Your task to perform on an android device: Show me popular games on the Play Store Image 0: 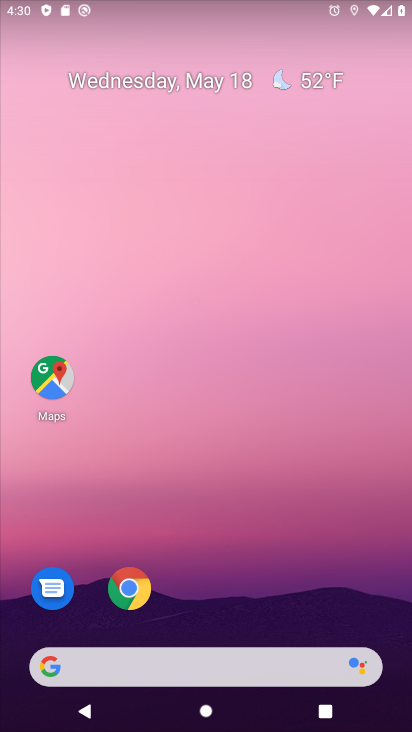
Step 0: drag from (272, 490) to (294, 66)
Your task to perform on an android device: Show me popular games on the Play Store Image 1: 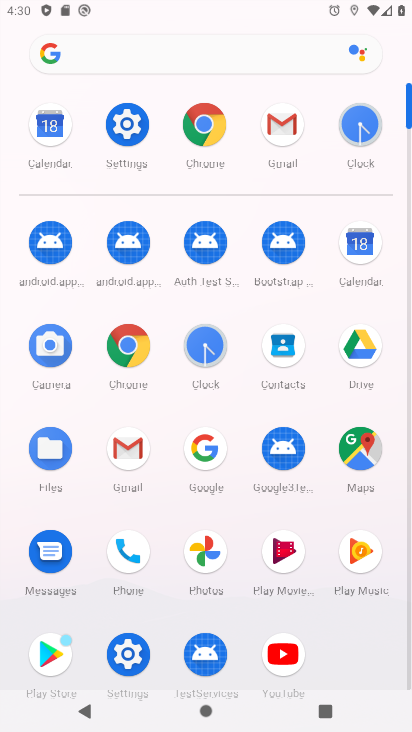
Step 1: click (49, 638)
Your task to perform on an android device: Show me popular games on the Play Store Image 2: 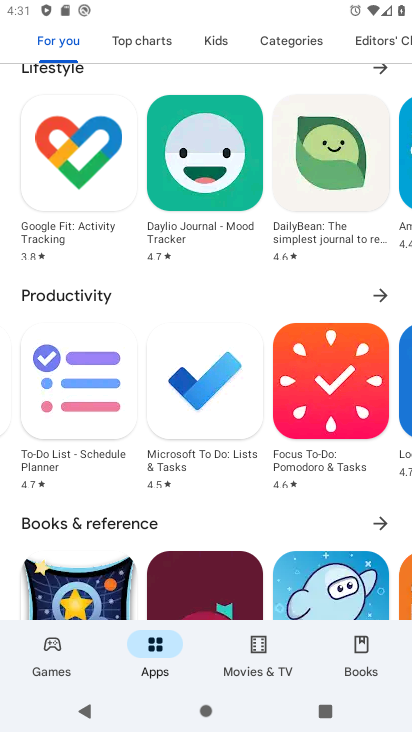
Step 2: click (46, 659)
Your task to perform on an android device: Show me popular games on the Play Store Image 3: 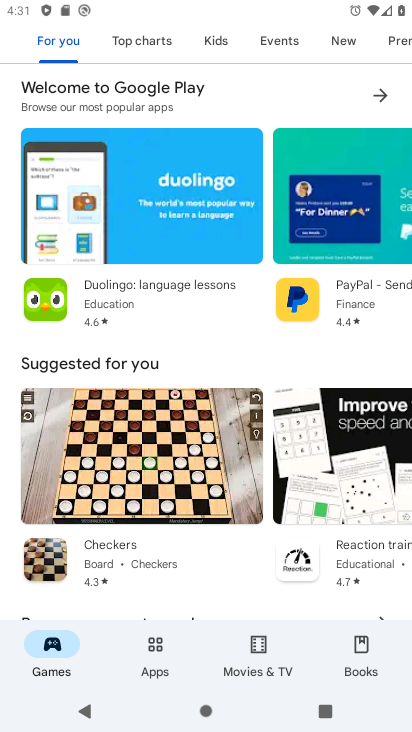
Step 3: drag from (162, 438) to (184, 690)
Your task to perform on an android device: Show me popular games on the Play Store Image 4: 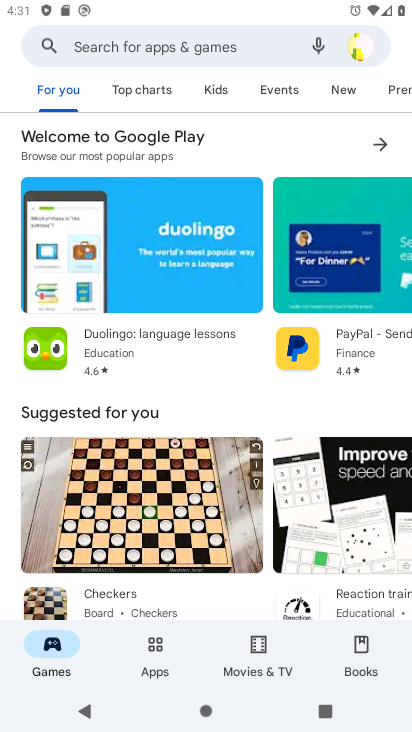
Step 4: drag from (203, 474) to (258, 118)
Your task to perform on an android device: Show me popular games on the Play Store Image 5: 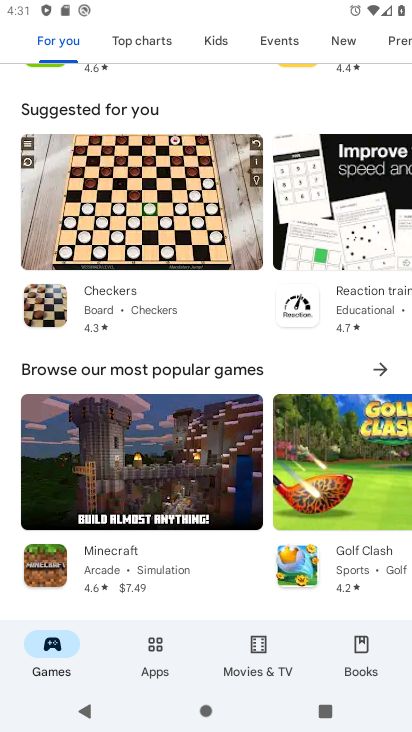
Step 5: drag from (189, 527) to (232, 157)
Your task to perform on an android device: Show me popular games on the Play Store Image 6: 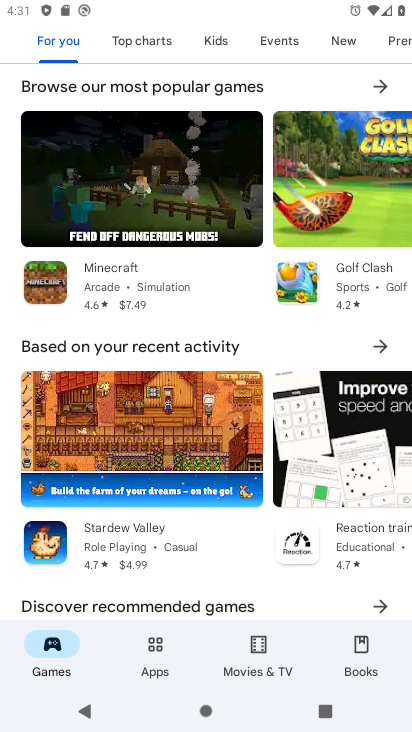
Step 6: drag from (204, 458) to (249, 104)
Your task to perform on an android device: Show me popular games on the Play Store Image 7: 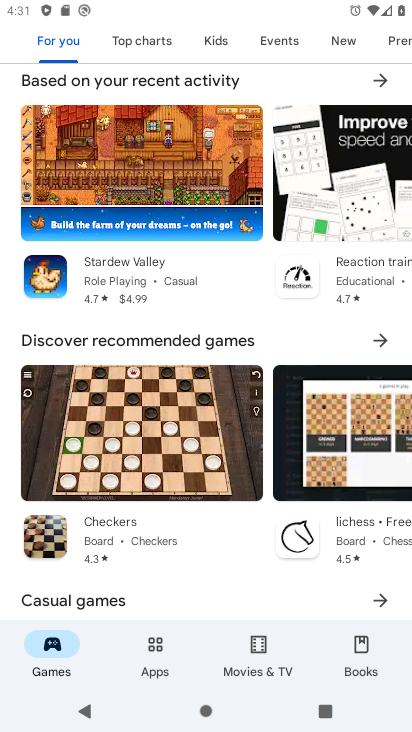
Step 7: drag from (193, 516) to (229, 87)
Your task to perform on an android device: Show me popular games on the Play Store Image 8: 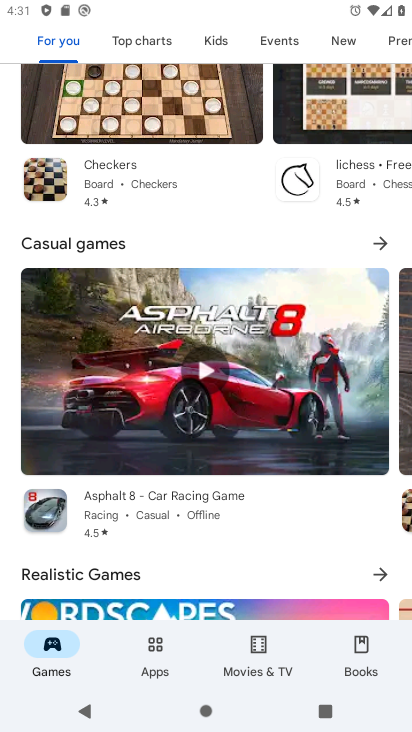
Step 8: drag from (178, 453) to (222, 119)
Your task to perform on an android device: Show me popular games on the Play Store Image 9: 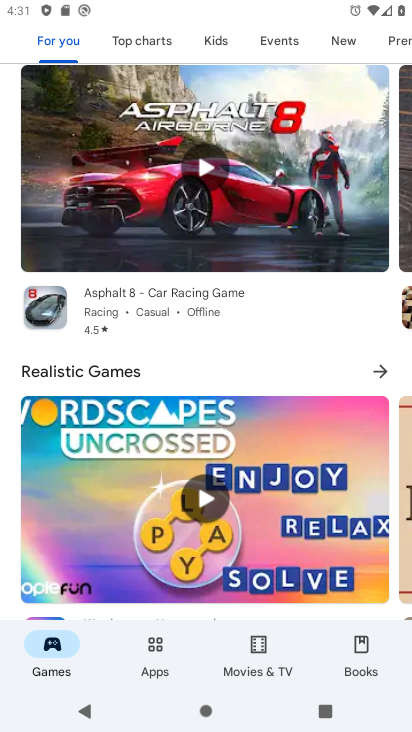
Step 9: drag from (144, 503) to (211, 178)
Your task to perform on an android device: Show me popular games on the Play Store Image 10: 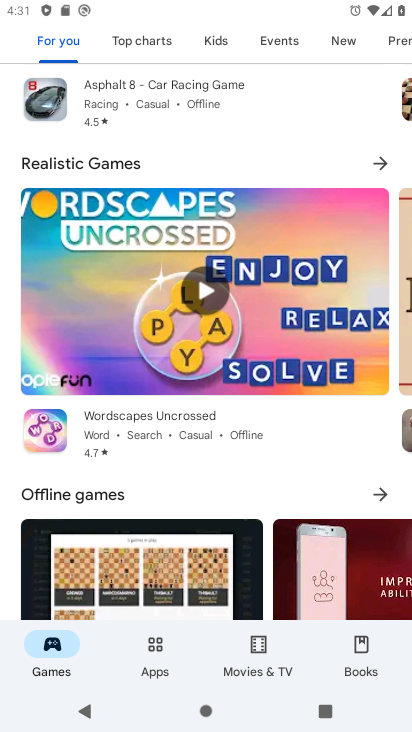
Step 10: drag from (153, 568) to (211, 189)
Your task to perform on an android device: Show me popular games on the Play Store Image 11: 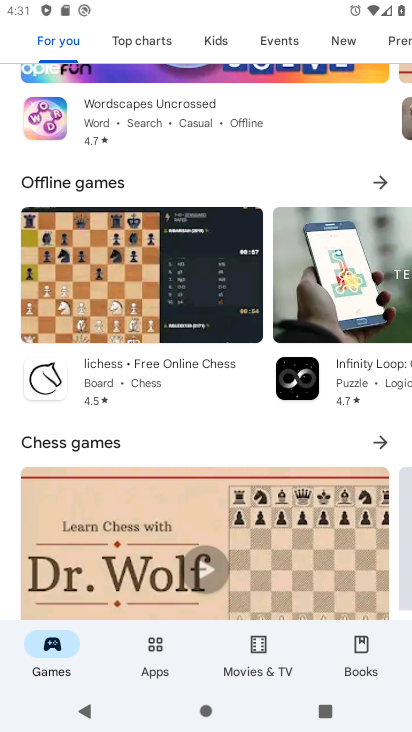
Step 11: drag from (169, 464) to (220, 144)
Your task to perform on an android device: Show me popular games on the Play Store Image 12: 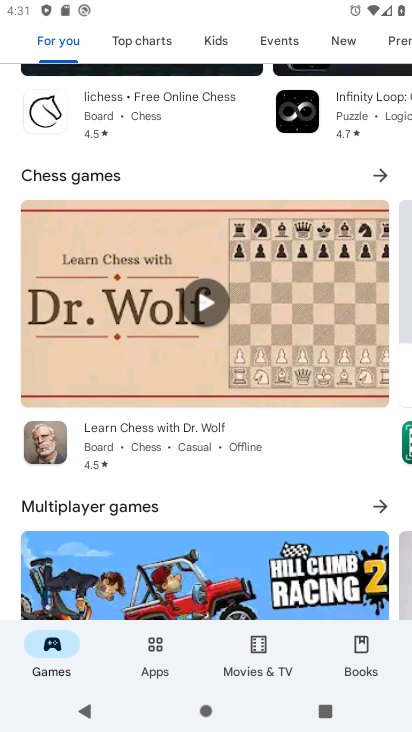
Step 12: drag from (121, 517) to (182, 157)
Your task to perform on an android device: Show me popular games on the Play Store Image 13: 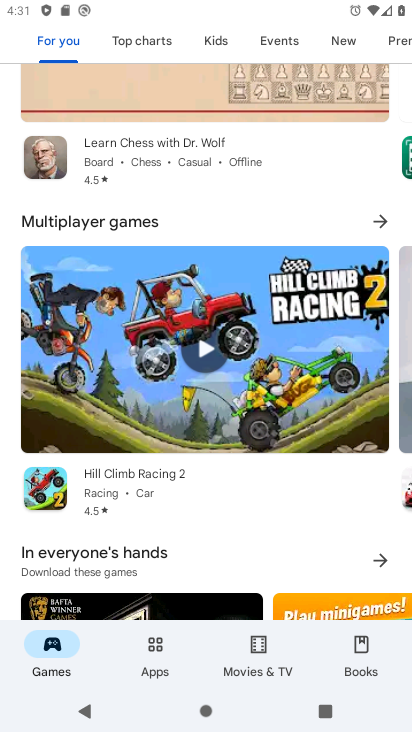
Step 13: drag from (160, 608) to (238, 159)
Your task to perform on an android device: Show me popular games on the Play Store Image 14: 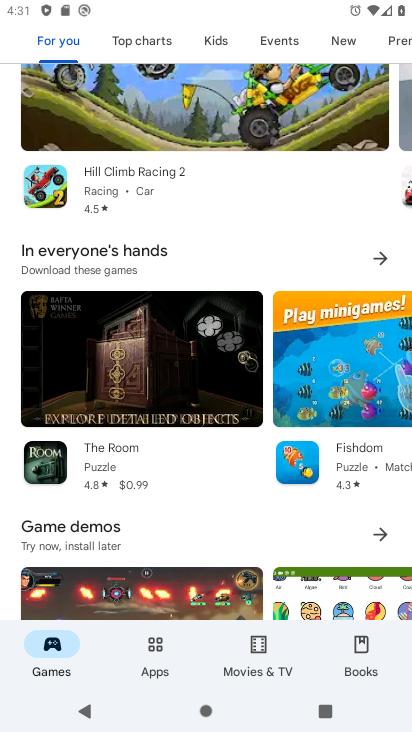
Step 14: drag from (217, 554) to (257, 135)
Your task to perform on an android device: Show me popular games on the Play Store Image 15: 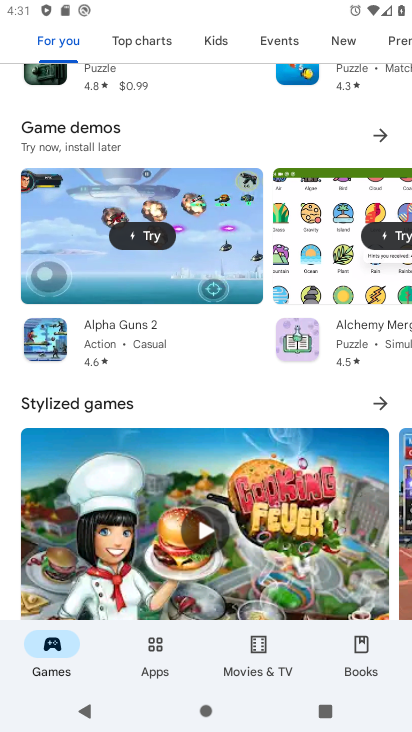
Step 15: drag from (212, 544) to (248, 136)
Your task to perform on an android device: Show me popular games on the Play Store Image 16: 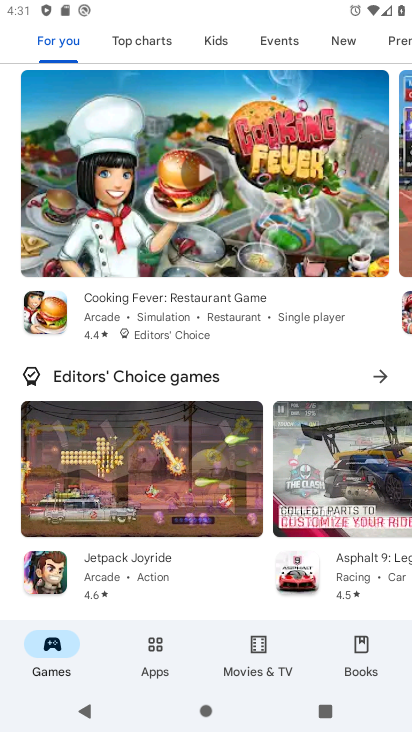
Step 16: drag from (201, 582) to (215, 183)
Your task to perform on an android device: Show me popular games on the Play Store Image 17: 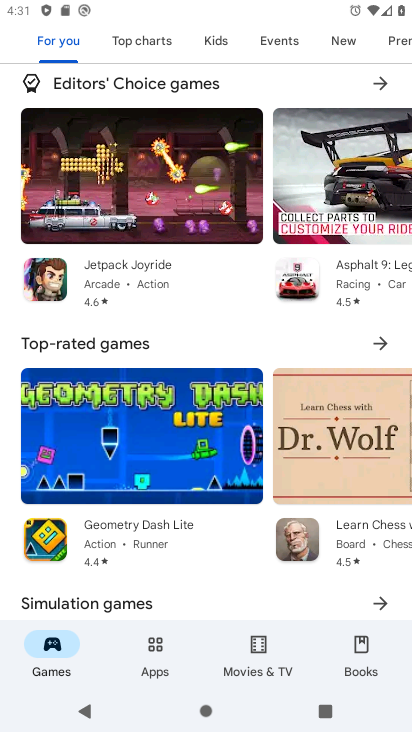
Step 17: drag from (188, 523) to (218, 144)
Your task to perform on an android device: Show me popular games on the Play Store Image 18: 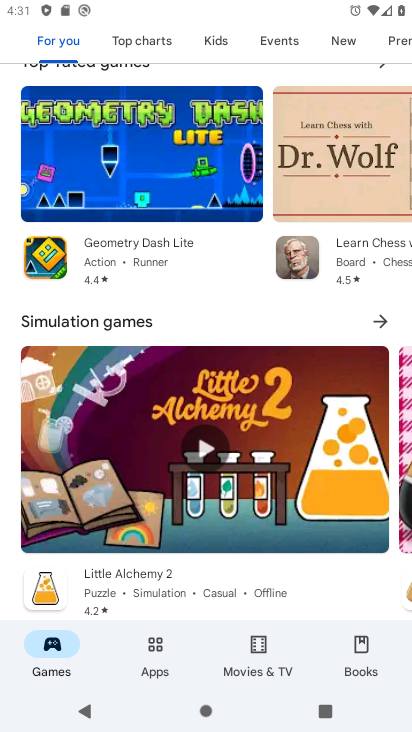
Step 18: drag from (179, 557) to (172, 86)
Your task to perform on an android device: Show me popular games on the Play Store Image 19: 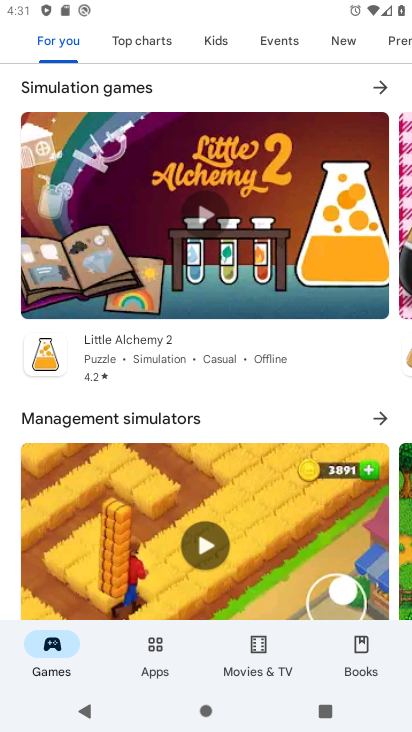
Step 19: drag from (131, 600) to (194, 142)
Your task to perform on an android device: Show me popular games on the Play Store Image 20: 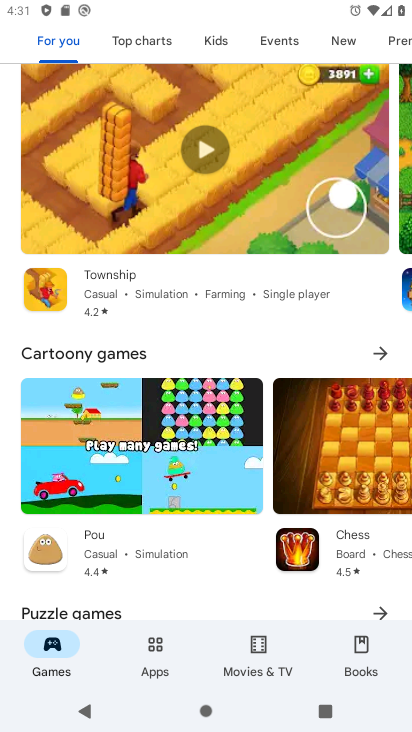
Step 20: drag from (176, 629) to (225, 167)
Your task to perform on an android device: Show me popular games on the Play Store Image 21: 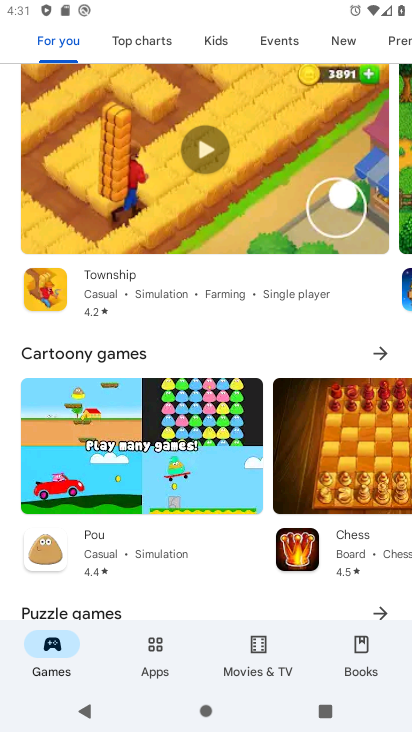
Step 21: drag from (163, 574) to (224, 137)
Your task to perform on an android device: Show me popular games on the Play Store Image 22: 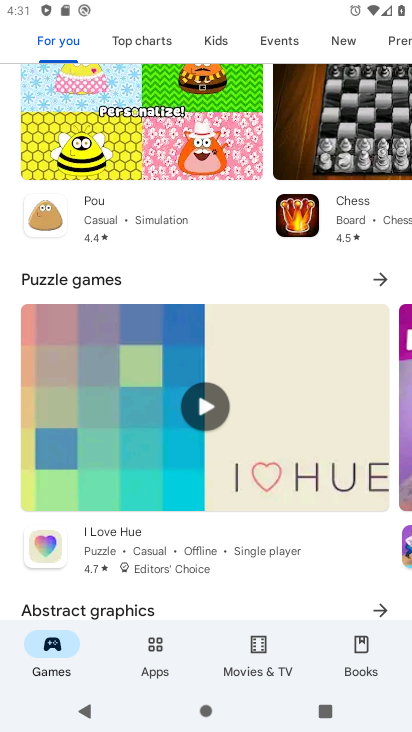
Step 22: drag from (174, 520) to (214, 152)
Your task to perform on an android device: Show me popular games on the Play Store Image 23: 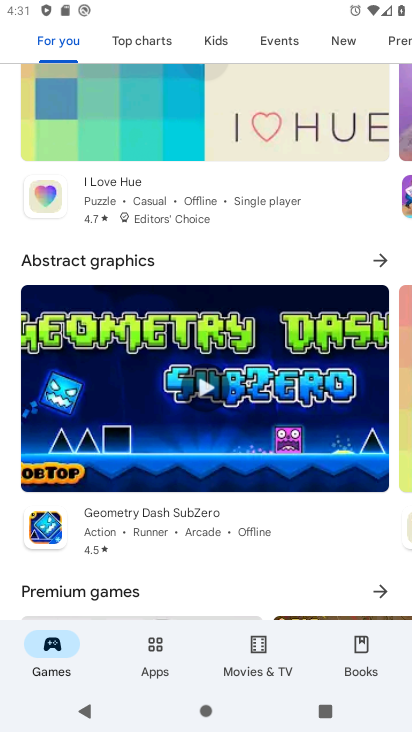
Step 23: drag from (163, 567) to (233, 144)
Your task to perform on an android device: Show me popular games on the Play Store Image 24: 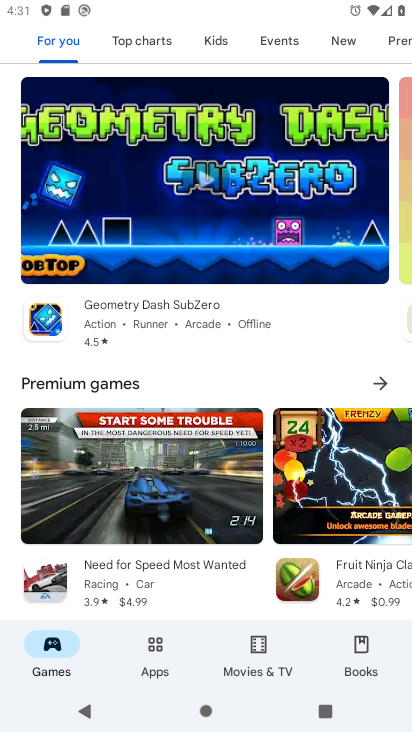
Step 24: drag from (168, 609) to (217, 240)
Your task to perform on an android device: Show me popular games on the Play Store Image 25: 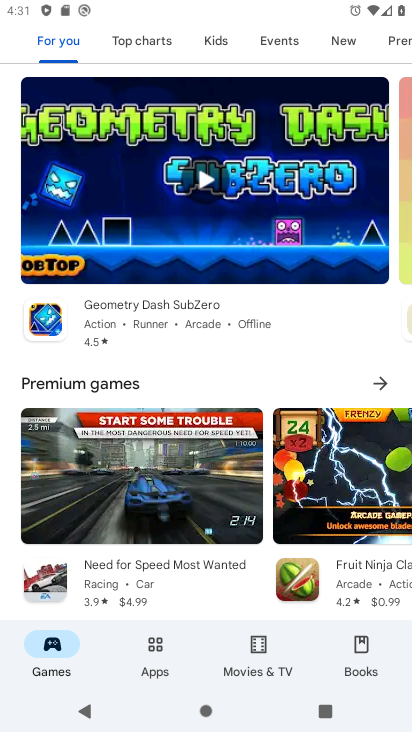
Step 25: drag from (196, 593) to (206, 198)
Your task to perform on an android device: Show me popular games on the Play Store Image 26: 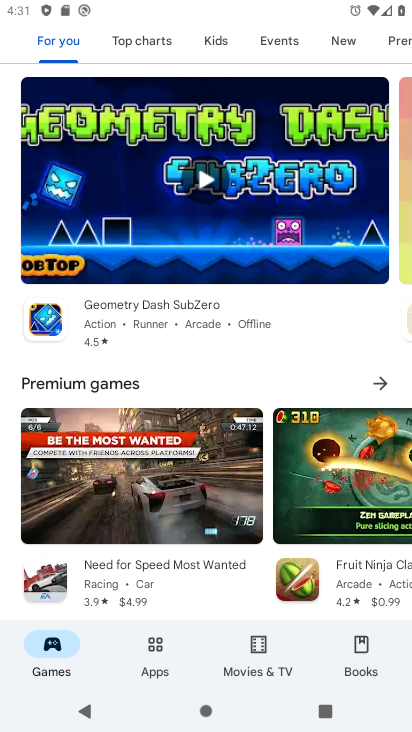
Step 26: drag from (155, 562) to (223, 168)
Your task to perform on an android device: Show me popular games on the Play Store Image 27: 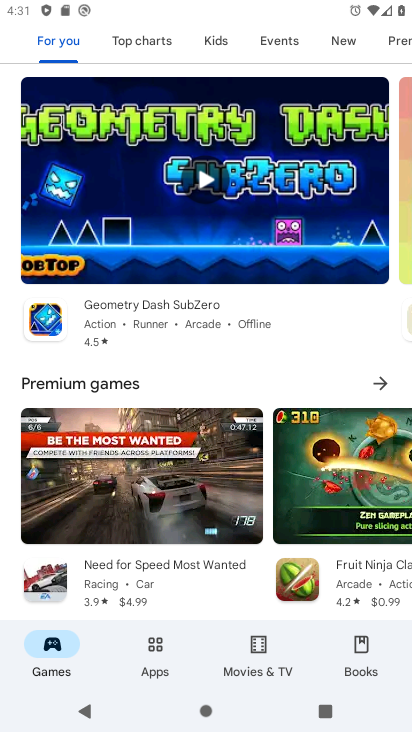
Step 27: drag from (171, 560) to (223, 189)
Your task to perform on an android device: Show me popular games on the Play Store Image 28: 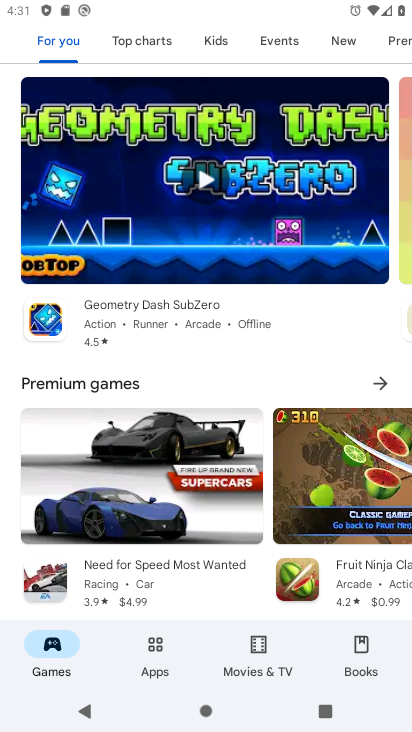
Step 28: drag from (209, 244) to (209, 580)
Your task to perform on an android device: Show me popular games on the Play Store Image 29: 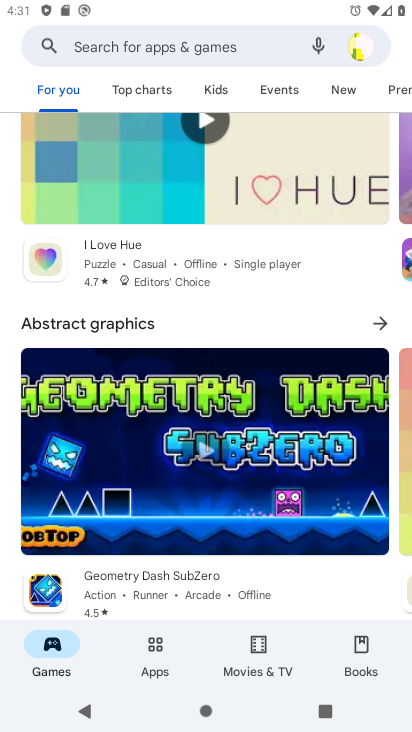
Step 29: drag from (260, 269) to (273, 648)
Your task to perform on an android device: Show me popular games on the Play Store Image 30: 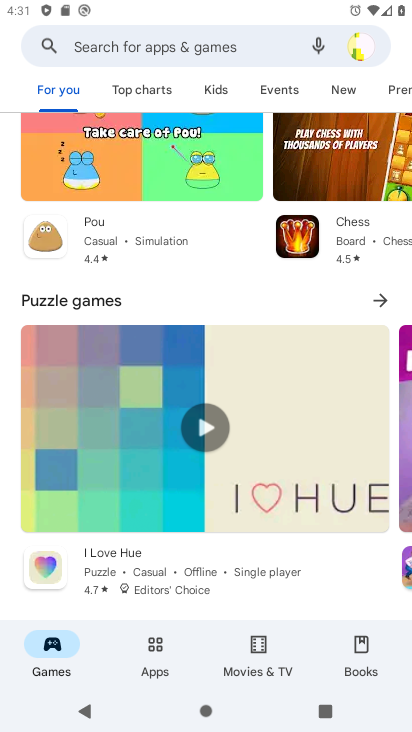
Step 30: drag from (203, 200) to (189, 524)
Your task to perform on an android device: Show me popular games on the Play Store Image 31: 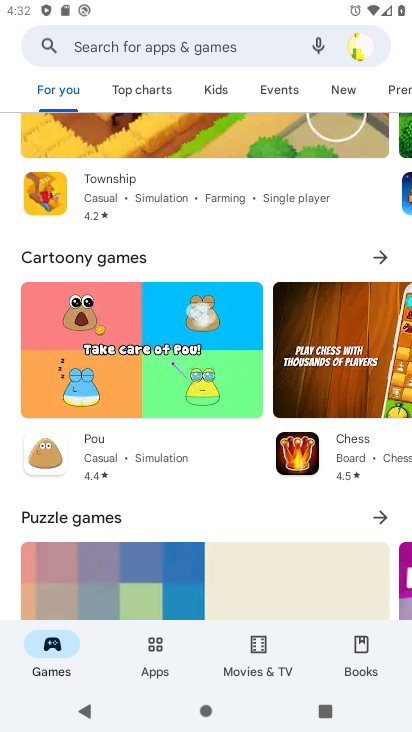
Step 31: drag from (146, 132) to (201, 603)
Your task to perform on an android device: Show me popular games on the Play Store Image 32: 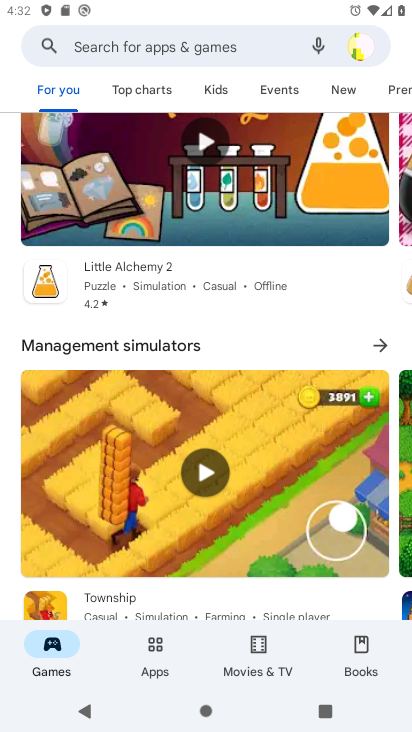
Step 32: drag from (167, 207) to (192, 581)
Your task to perform on an android device: Show me popular games on the Play Store Image 33: 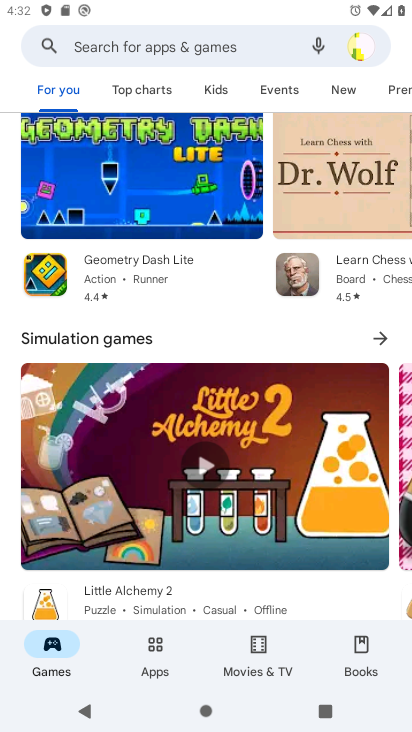
Step 33: drag from (139, 154) to (219, 552)
Your task to perform on an android device: Show me popular games on the Play Store Image 34: 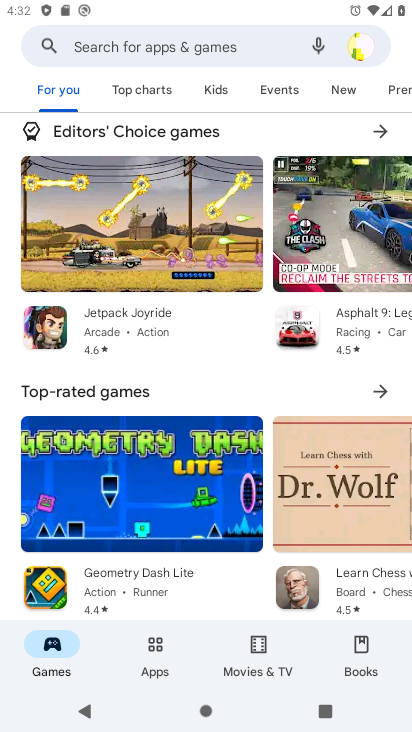
Step 34: drag from (144, 171) to (213, 552)
Your task to perform on an android device: Show me popular games on the Play Store Image 35: 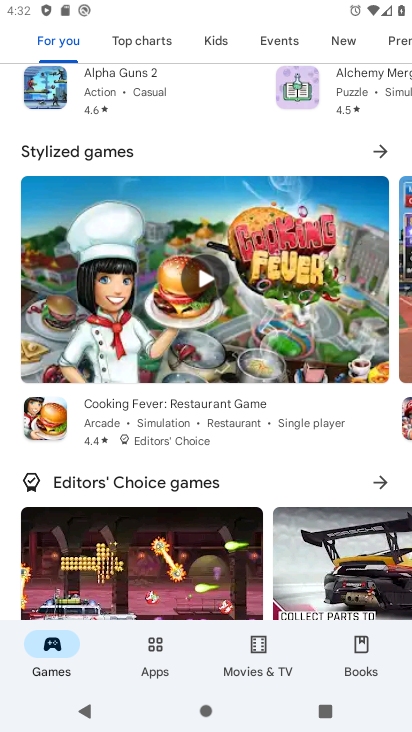
Step 35: drag from (148, 171) to (257, 612)
Your task to perform on an android device: Show me popular games on the Play Store Image 36: 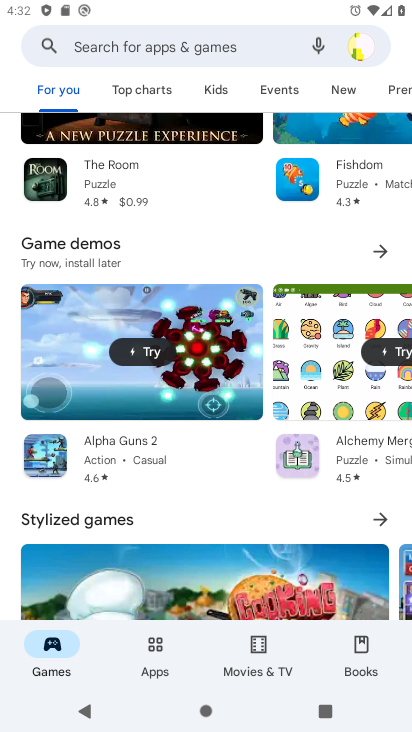
Step 36: drag from (167, 218) to (229, 556)
Your task to perform on an android device: Show me popular games on the Play Store Image 37: 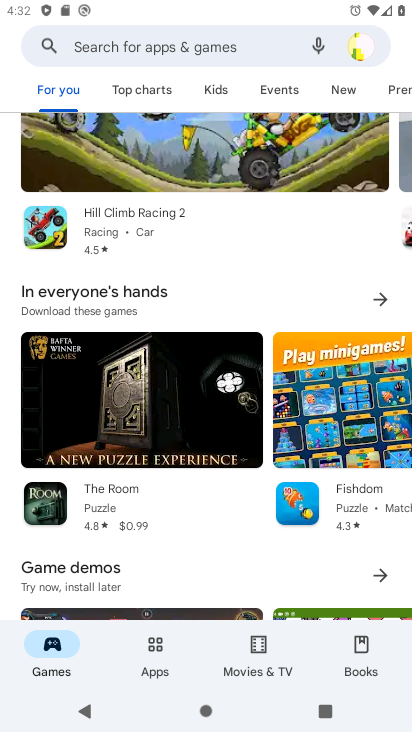
Step 37: drag from (167, 191) to (247, 538)
Your task to perform on an android device: Show me popular games on the Play Store Image 38: 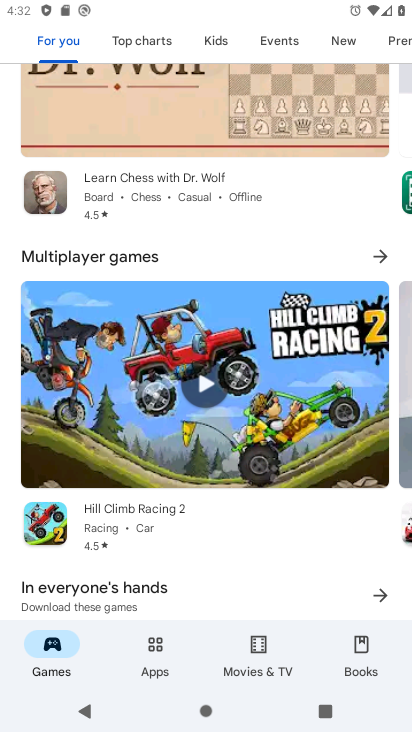
Step 38: drag from (194, 183) to (259, 566)
Your task to perform on an android device: Show me popular games on the Play Store Image 39: 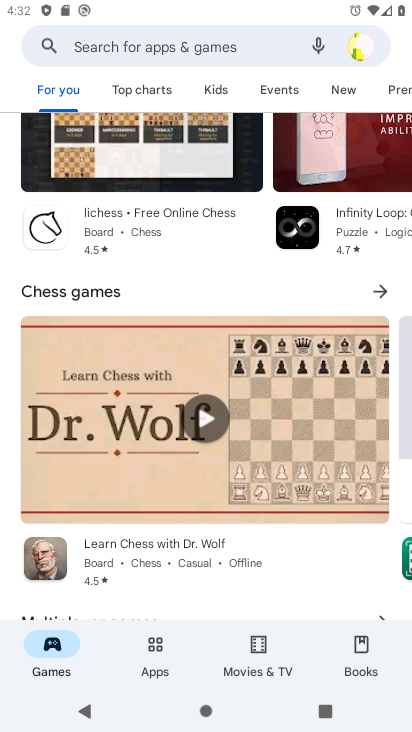
Step 39: drag from (187, 278) to (245, 570)
Your task to perform on an android device: Show me popular games on the Play Store Image 40: 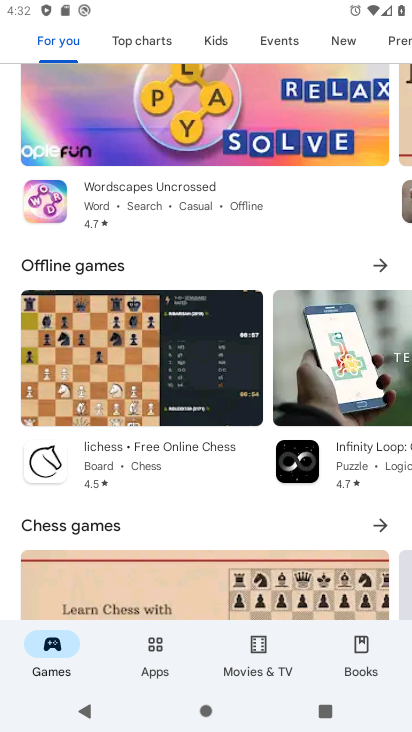
Step 40: drag from (163, 212) to (213, 496)
Your task to perform on an android device: Show me popular games on the Play Store Image 41: 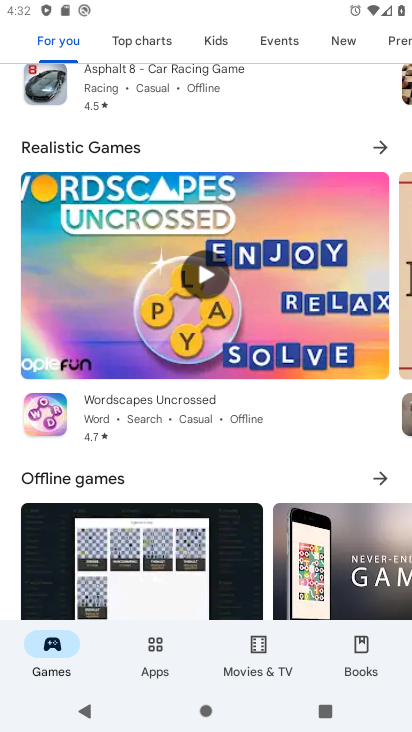
Step 41: drag from (146, 154) to (178, 289)
Your task to perform on an android device: Show me popular games on the Play Store Image 42: 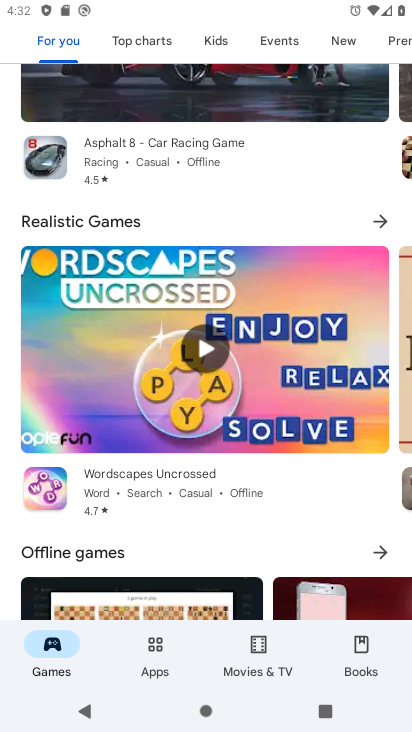
Step 42: drag from (161, 145) to (207, 446)
Your task to perform on an android device: Show me popular games on the Play Store Image 43: 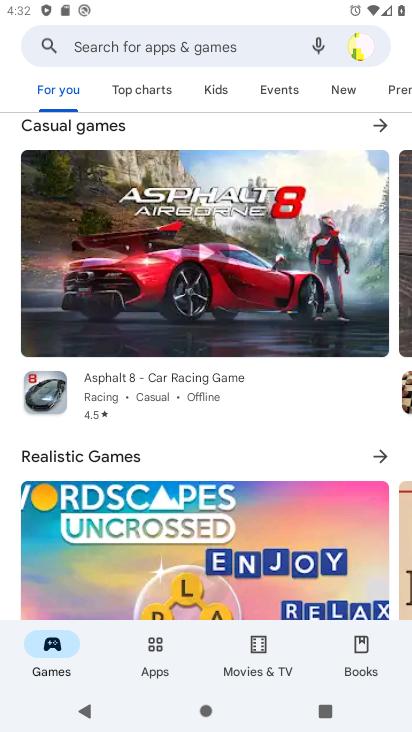
Step 43: drag from (154, 148) to (208, 461)
Your task to perform on an android device: Show me popular games on the Play Store Image 44: 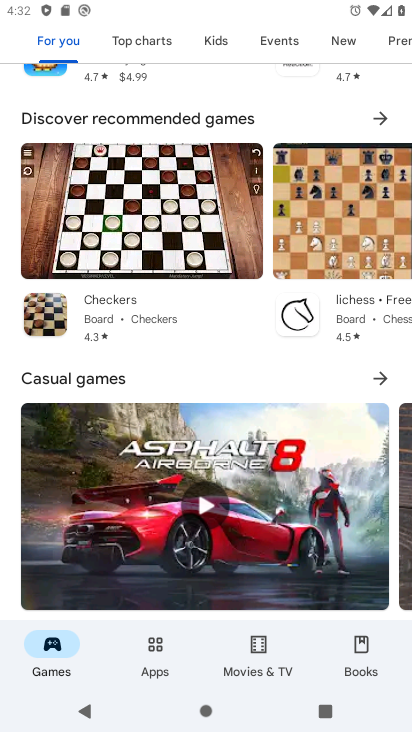
Step 44: drag from (153, 130) to (219, 495)
Your task to perform on an android device: Show me popular games on the Play Store Image 45: 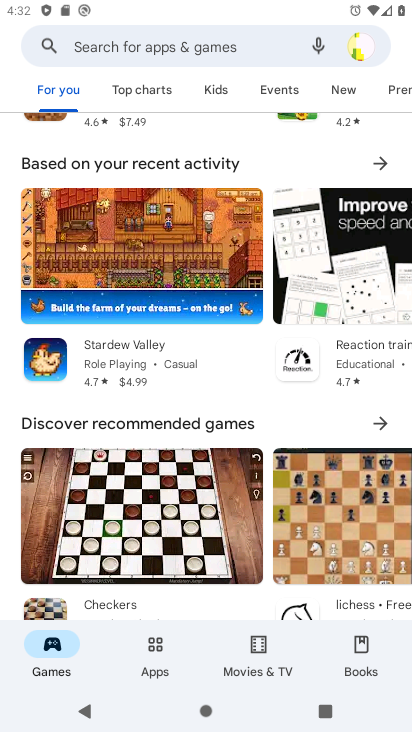
Step 45: drag from (145, 173) to (200, 439)
Your task to perform on an android device: Show me popular games on the Play Store Image 46: 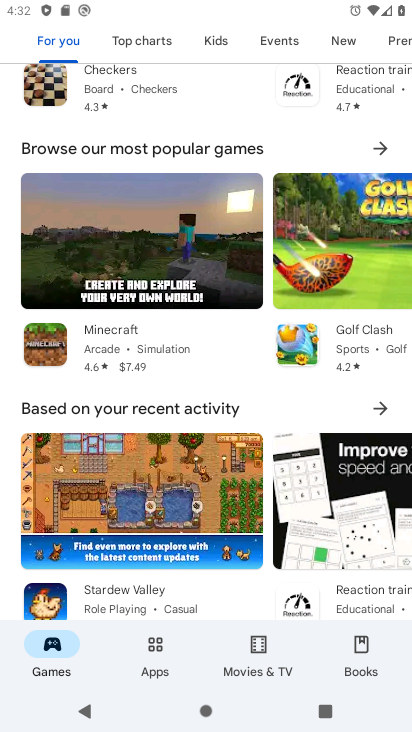
Step 46: drag from (119, 142) to (193, 477)
Your task to perform on an android device: Show me popular games on the Play Store Image 47: 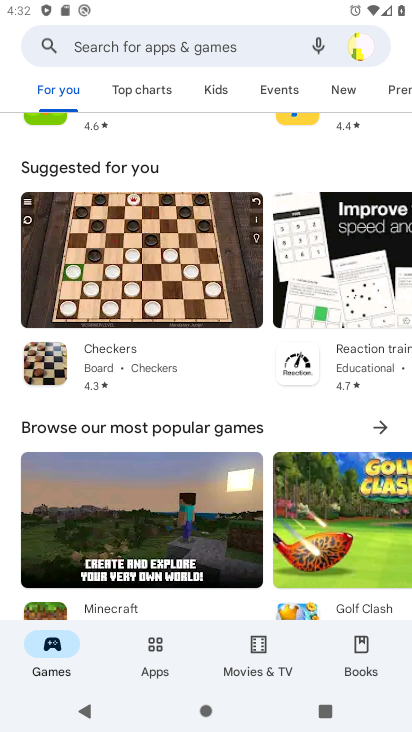
Step 47: drag from (145, 139) to (202, 450)
Your task to perform on an android device: Show me popular games on the Play Store Image 48: 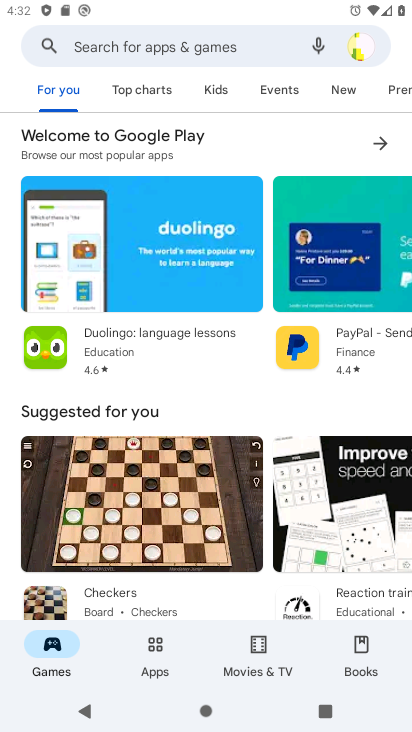
Step 48: drag from (131, 135) to (196, 475)
Your task to perform on an android device: Show me popular games on the Play Store Image 49: 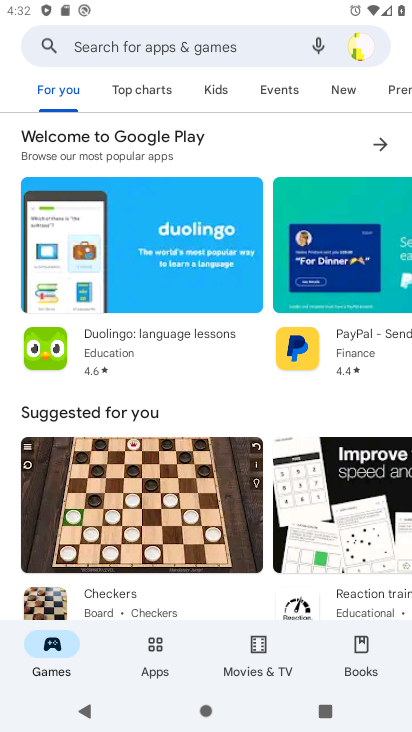
Step 49: drag from (227, 140) to (247, 460)
Your task to perform on an android device: Show me popular games on the Play Store Image 50: 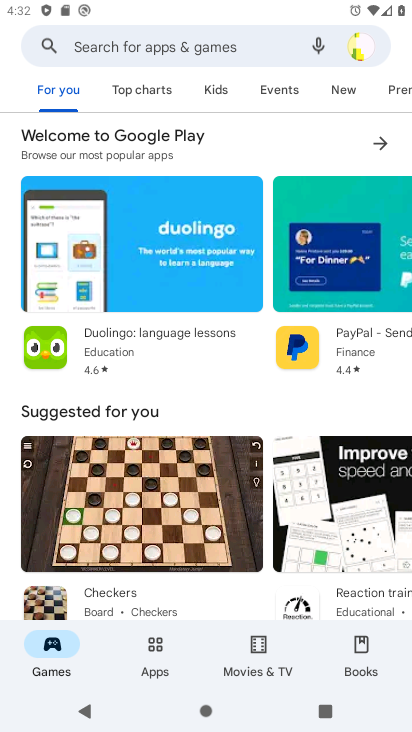
Step 50: drag from (211, 412) to (238, 90)
Your task to perform on an android device: Show me popular games on the Play Store Image 51: 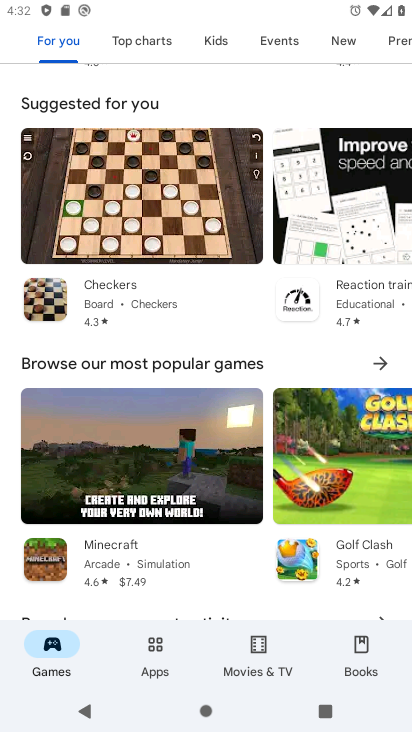
Step 51: drag from (195, 444) to (238, 62)
Your task to perform on an android device: Show me popular games on the Play Store Image 52: 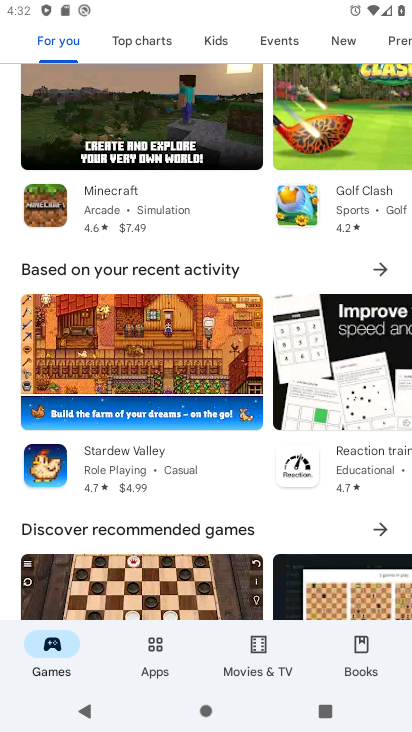
Step 52: drag from (201, 429) to (234, 2)
Your task to perform on an android device: Show me popular games on the Play Store Image 53: 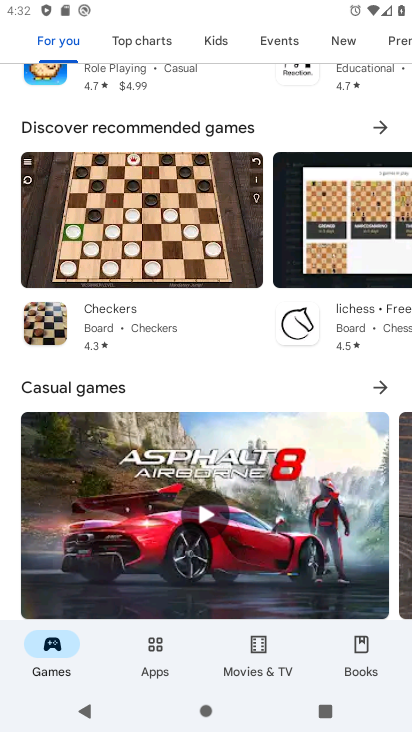
Step 53: drag from (180, 265) to (195, 71)
Your task to perform on an android device: Show me popular games on the Play Store Image 54: 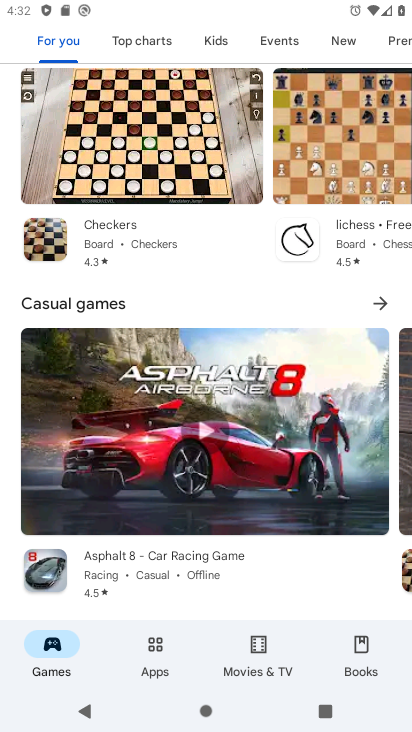
Step 54: drag from (185, 562) to (199, 179)
Your task to perform on an android device: Show me popular games on the Play Store Image 55: 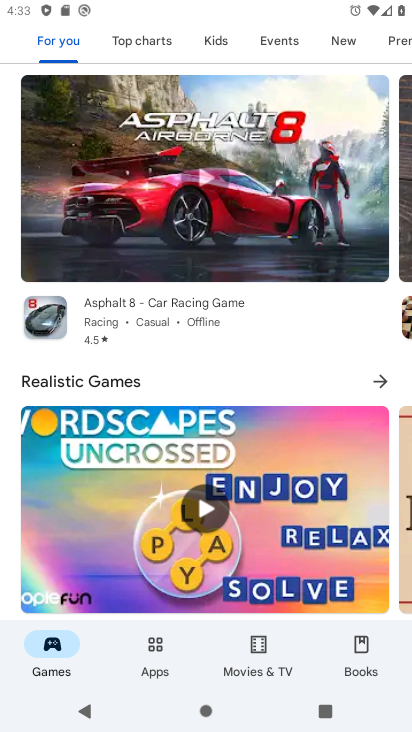
Step 55: drag from (208, 538) to (207, 66)
Your task to perform on an android device: Show me popular games on the Play Store Image 56: 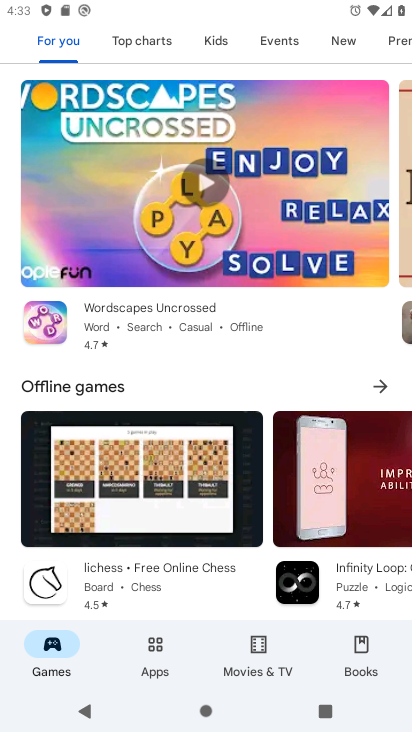
Step 56: drag from (189, 529) to (234, 88)
Your task to perform on an android device: Show me popular games on the Play Store Image 57: 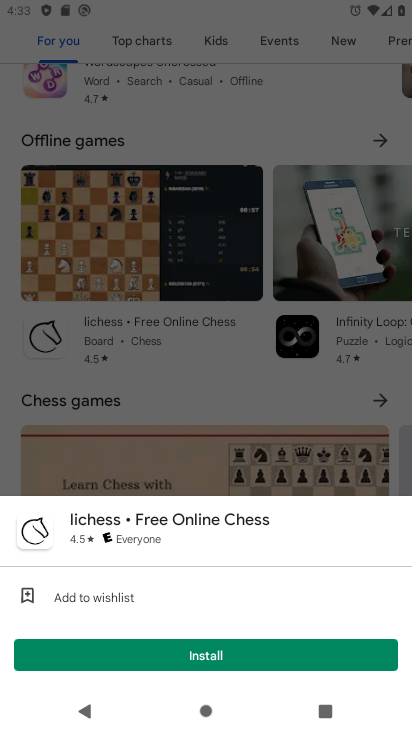
Step 57: click (174, 402)
Your task to perform on an android device: Show me popular games on the Play Store Image 58: 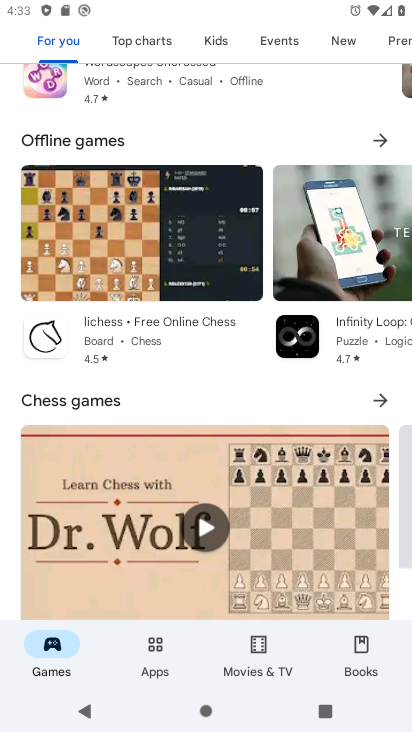
Step 58: task complete